Your task to perform on an android device: When is my next meeting? Image 0: 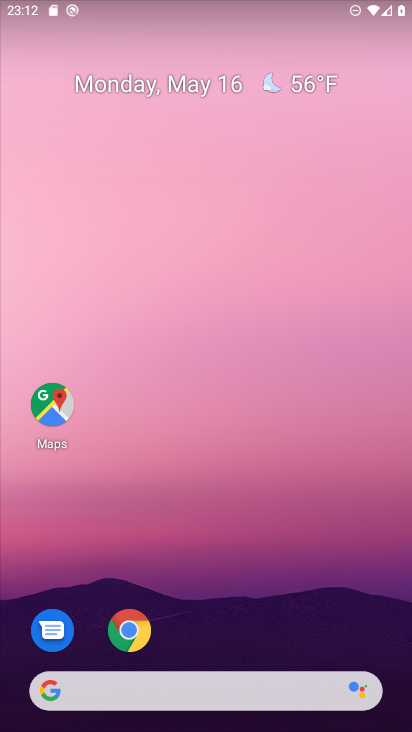
Step 0: drag from (249, 558) to (222, 96)
Your task to perform on an android device: When is my next meeting? Image 1: 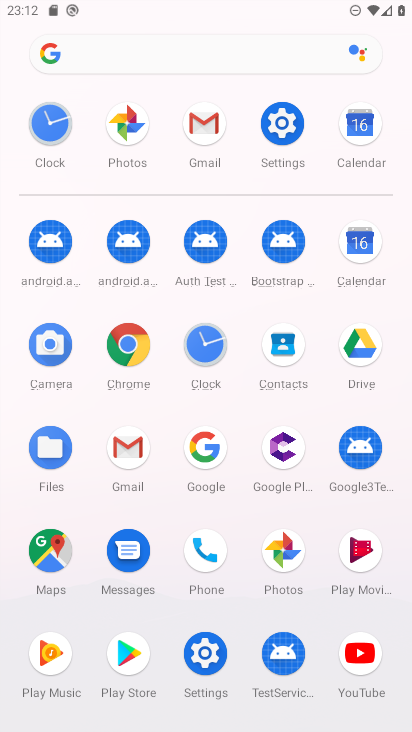
Step 1: click (369, 125)
Your task to perform on an android device: When is my next meeting? Image 2: 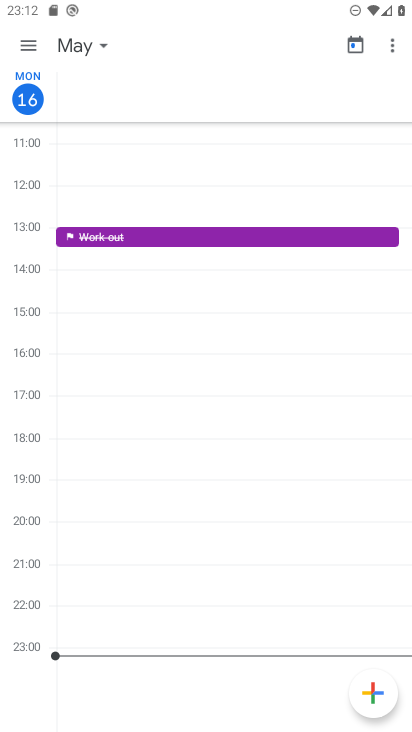
Step 2: click (24, 39)
Your task to perform on an android device: When is my next meeting? Image 3: 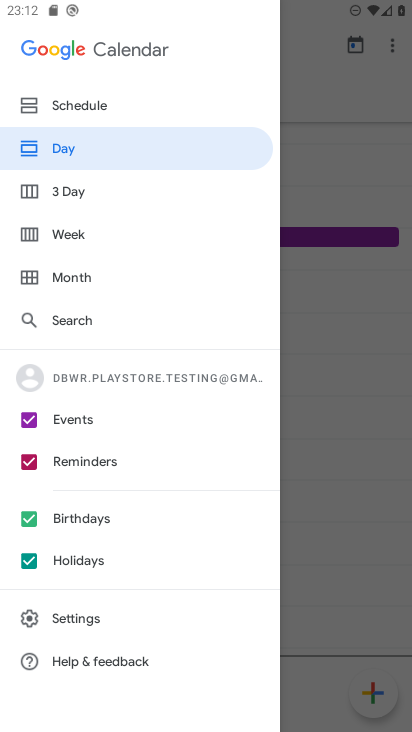
Step 3: click (68, 107)
Your task to perform on an android device: When is my next meeting? Image 4: 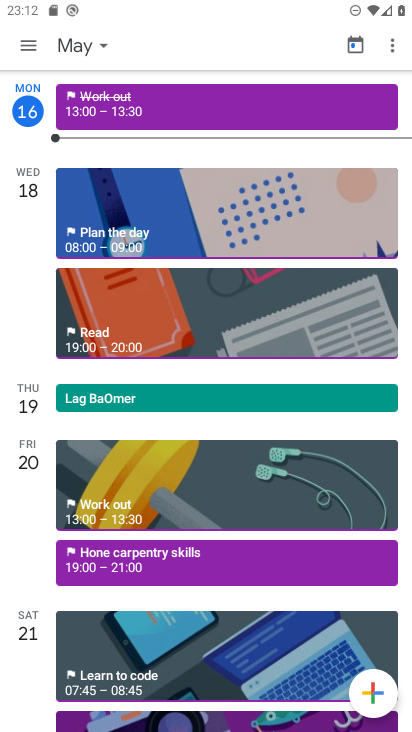
Step 4: task complete